Your task to perform on an android device: Toggle the flashlight Image 0: 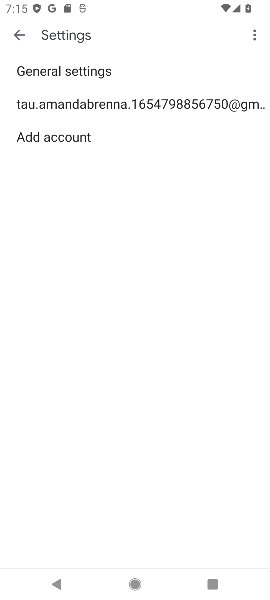
Step 0: press home button
Your task to perform on an android device: Toggle the flashlight Image 1: 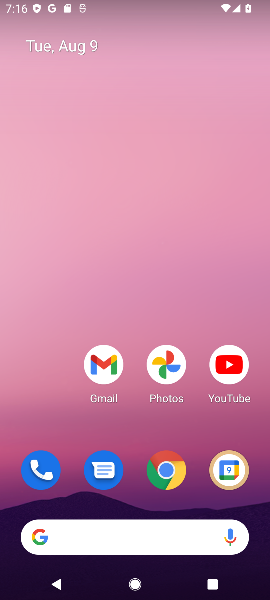
Step 1: task complete